Your task to perform on an android device: toggle data saver in the chrome app Image 0: 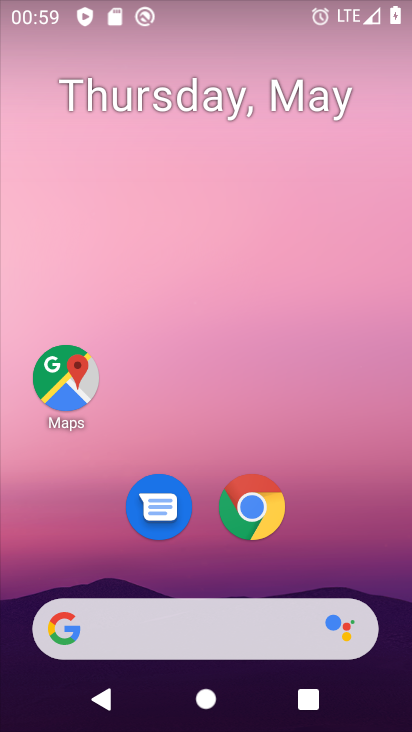
Step 0: click (261, 534)
Your task to perform on an android device: toggle data saver in the chrome app Image 1: 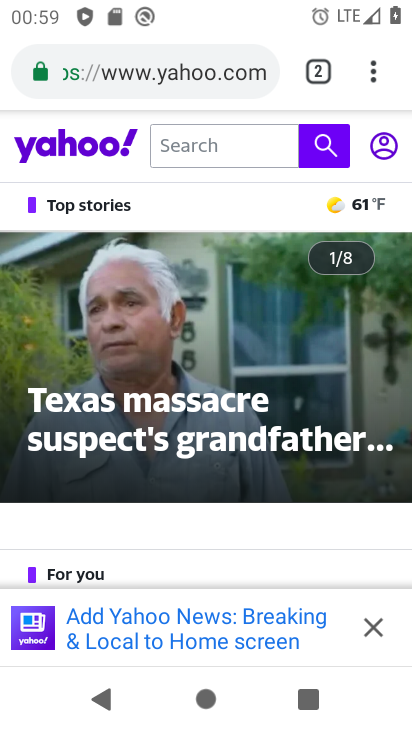
Step 1: click (366, 72)
Your task to perform on an android device: toggle data saver in the chrome app Image 2: 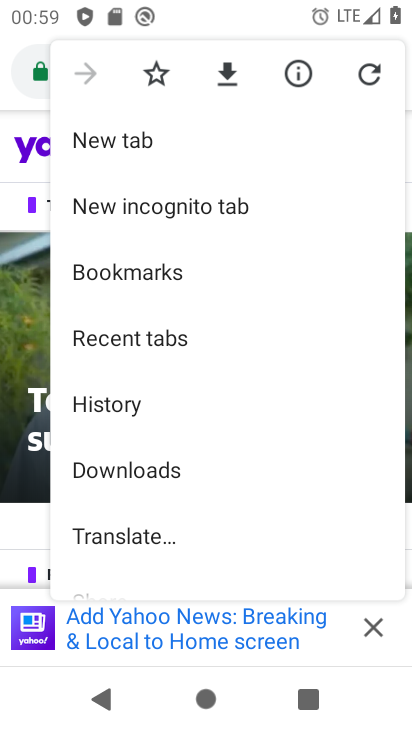
Step 2: drag from (195, 530) to (212, 320)
Your task to perform on an android device: toggle data saver in the chrome app Image 3: 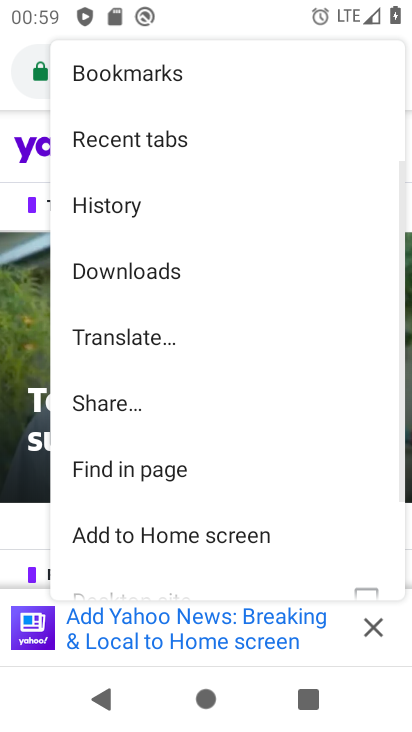
Step 3: drag from (167, 512) to (188, 302)
Your task to perform on an android device: toggle data saver in the chrome app Image 4: 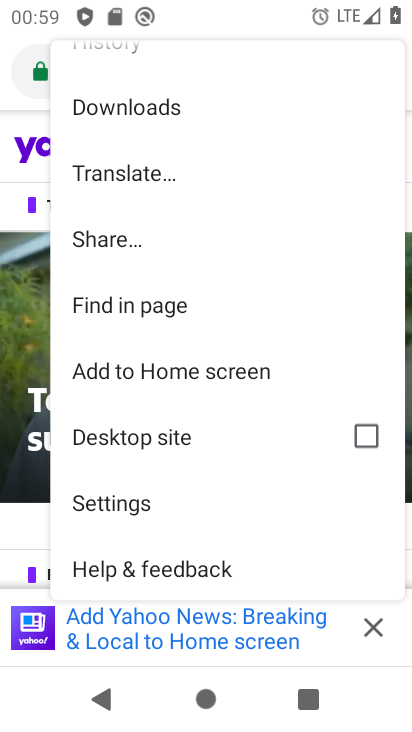
Step 4: drag from (195, 473) to (215, 306)
Your task to perform on an android device: toggle data saver in the chrome app Image 5: 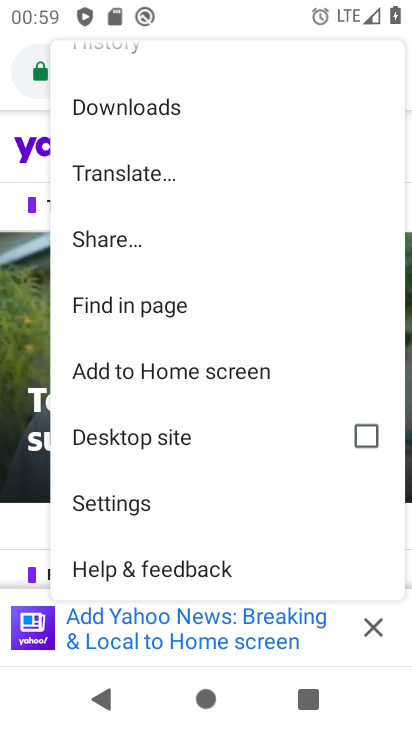
Step 5: click (144, 488)
Your task to perform on an android device: toggle data saver in the chrome app Image 6: 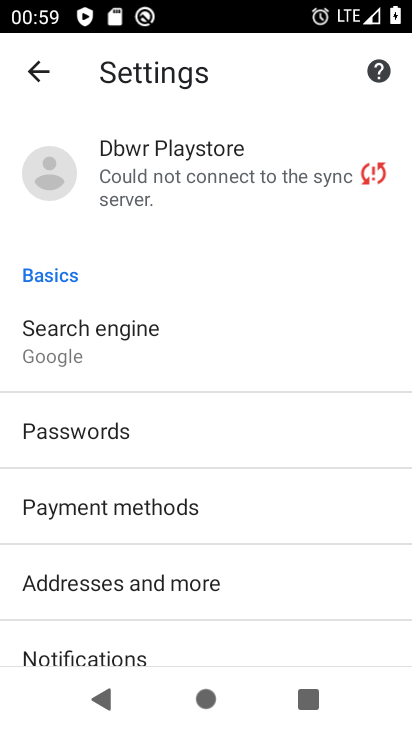
Step 6: drag from (208, 520) to (239, 333)
Your task to perform on an android device: toggle data saver in the chrome app Image 7: 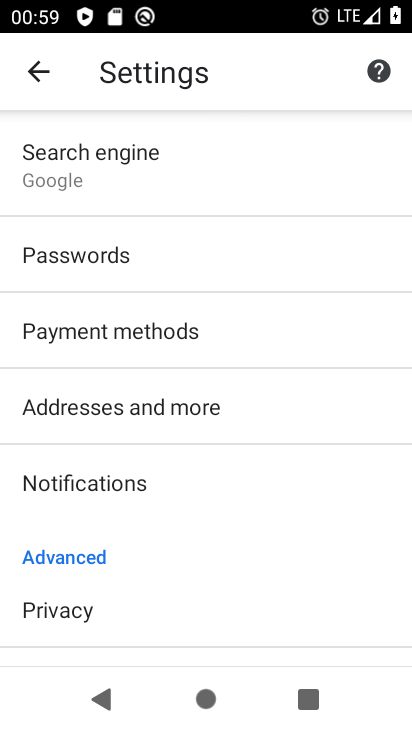
Step 7: drag from (198, 511) to (232, 261)
Your task to perform on an android device: toggle data saver in the chrome app Image 8: 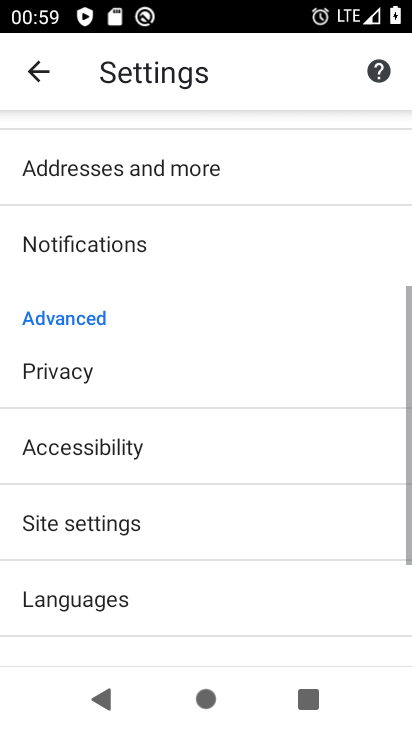
Step 8: drag from (175, 522) to (204, 322)
Your task to perform on an android device: toggle data saver in the chrome app Image 9: 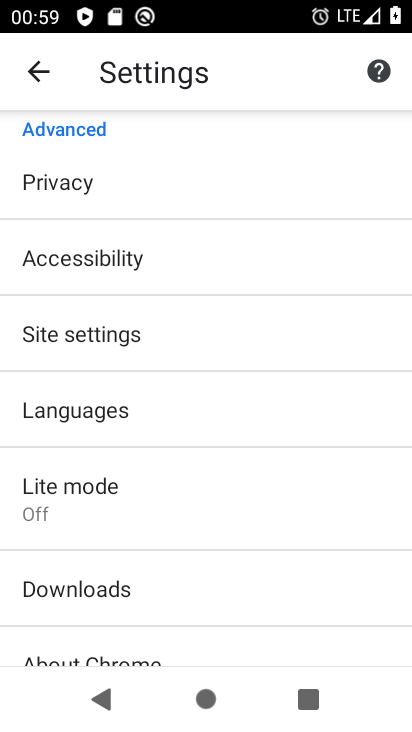
Step 9: click (152, 485)
Your task to perform on an android device: toggle data saver in the chrome app Image 10: 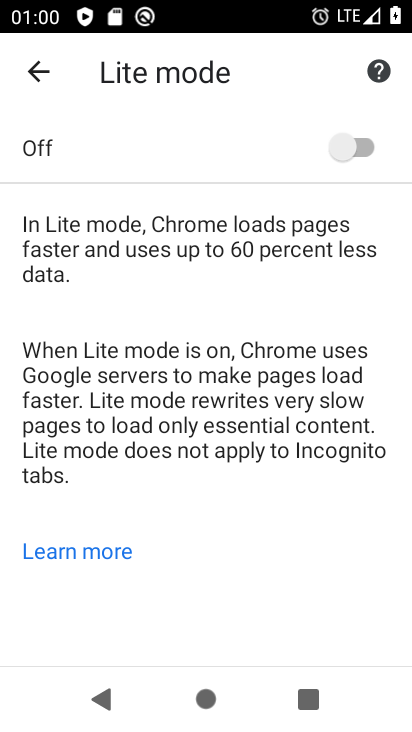
Step 10: click (363, 144)
Your task to perform on an android device: toggle data saver in the chrome app Image 11: 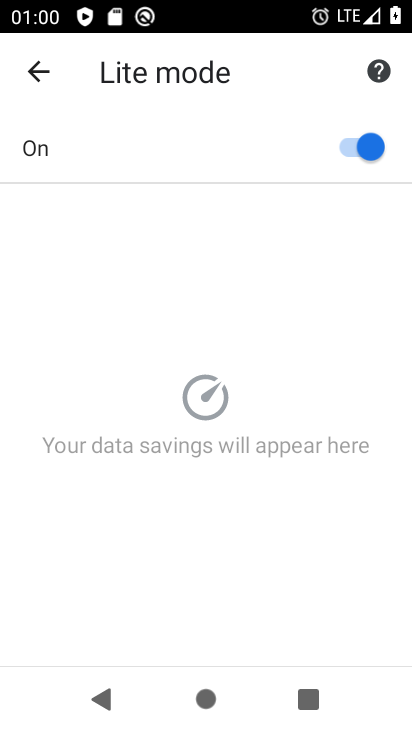
Step 11: task complete